Your task to perform on an android device: Open Chrome and go to settings Image 0: 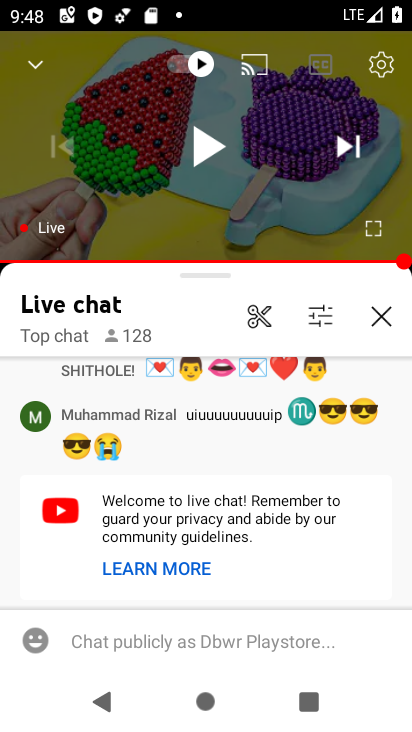
Step 0: press home button
Your task to perform on an android device: Open Chrome and go to settings Image 1: 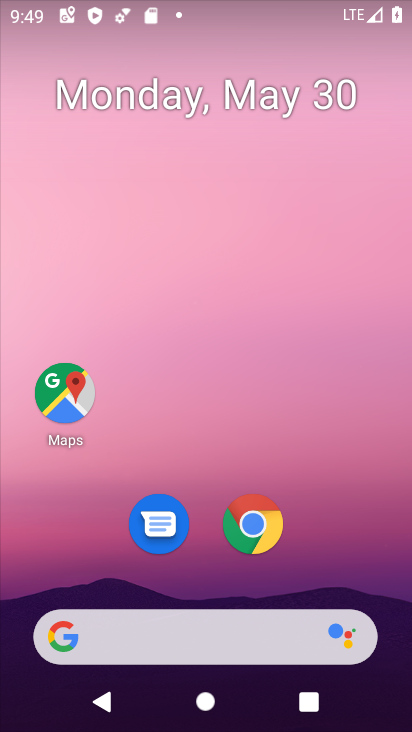
Step 1: click (254, 518)
Your task to perform on an android device: Open Chrome and go to settings Image 2: 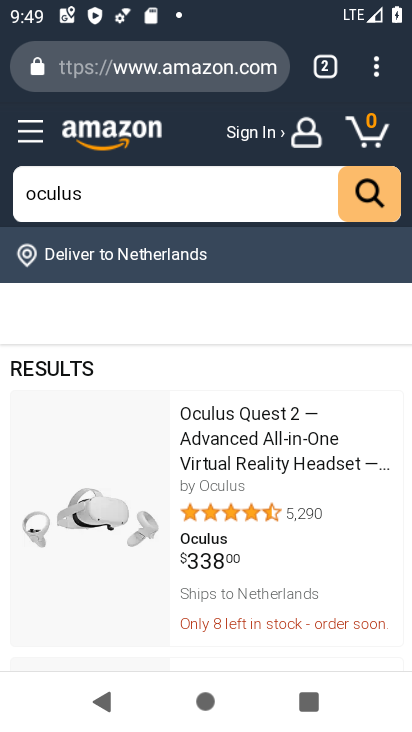
Step 2: click (381, 71)
Your task to perform on an android device: Open Chrome and go to settings Image 3: 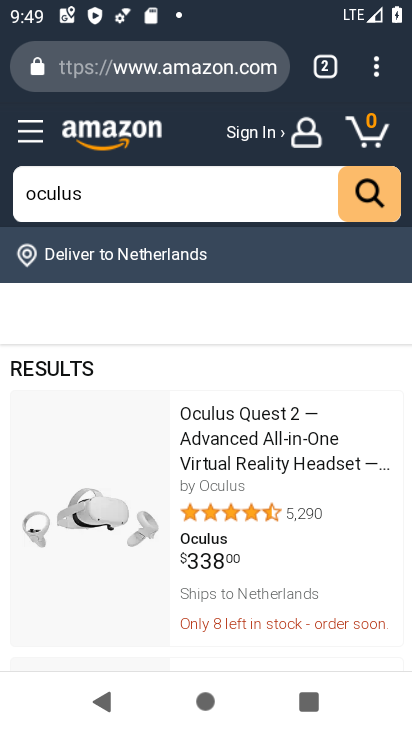
Step 3: click (381, 71)
Your task to perform on an android device: Open Chrome and go to settings Image 4: 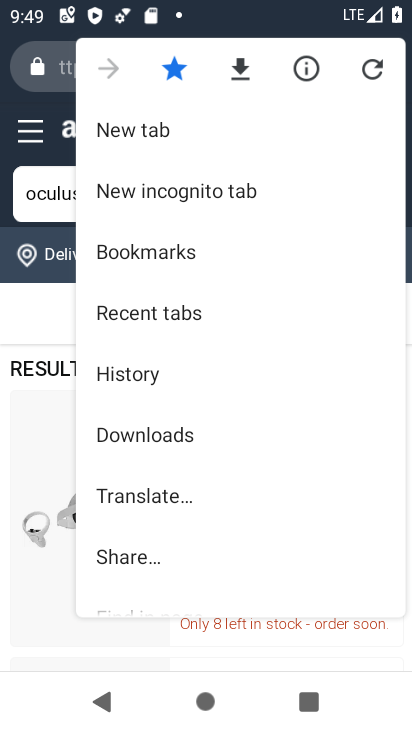
Step 4: drag from (254, 496) to (246, 241)
Your task to perform on an android device: Open Chrome and go to settings Image 5: 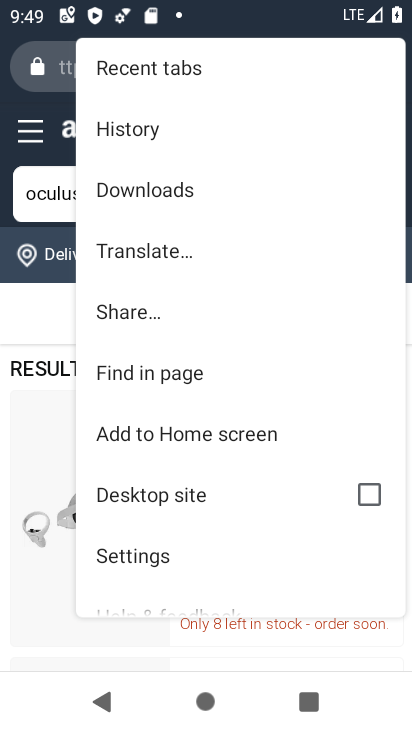
Step 5: click (184, 540)
Your task to perform on an android device: Open Chrome and go to settings Image 6: 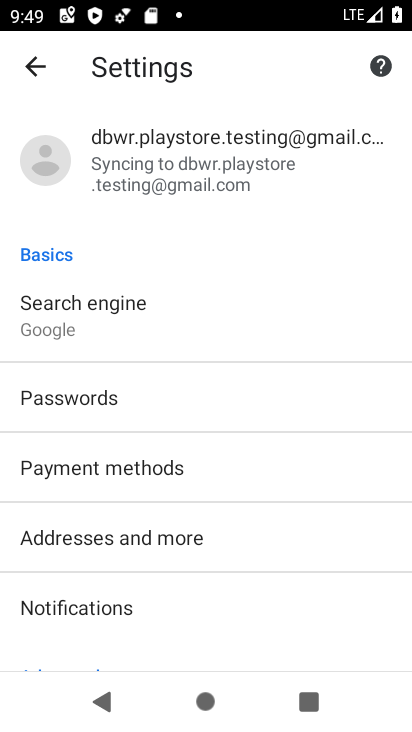
Step 6: task complete